Your task to perform on an android device: empty trash in google photos Image 0: 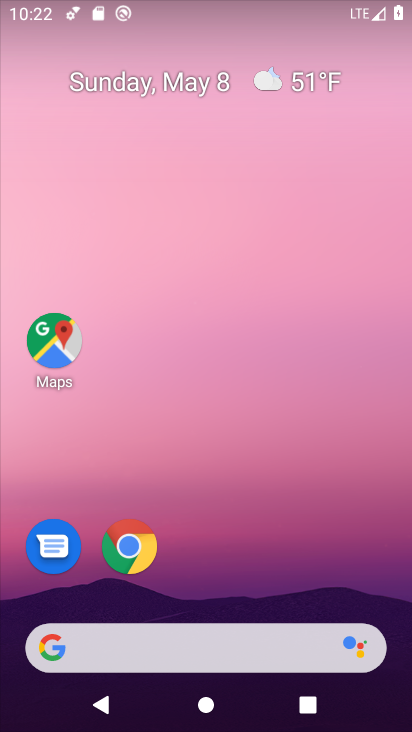
Step 0: drag from (394, 644) to (327, 65)
Your task to perform on an android device: empty trash in google photos Image 1: 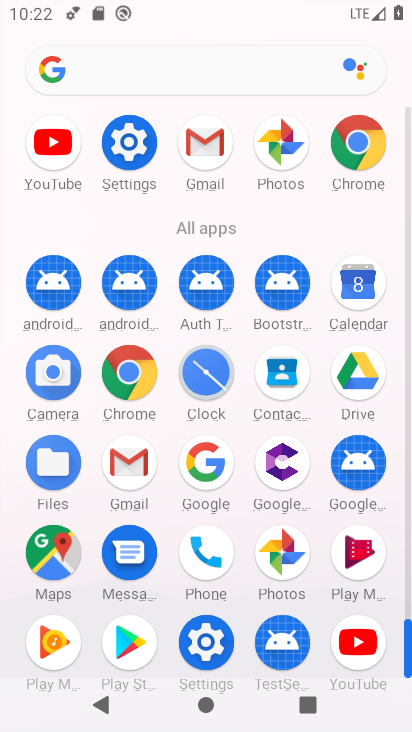
Step 1: click (405, 607)
Your task to perform on an android device: empty trash in google photos Image 2: 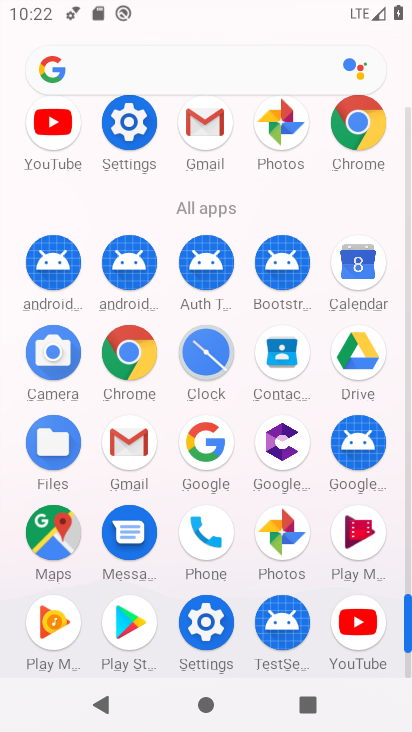
Step 2: click (279, 535)
Your task to perform on an android device: empty trash in google photos Image 3: 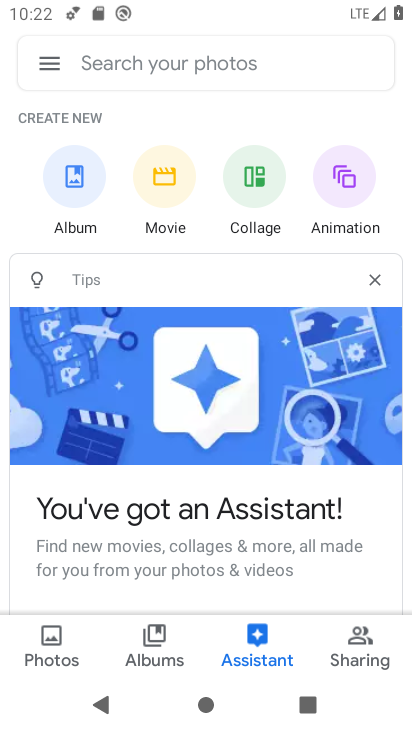
Step 3: click (49, 63)
Your task to perform on an android device: empty trash in google photos Image 4: 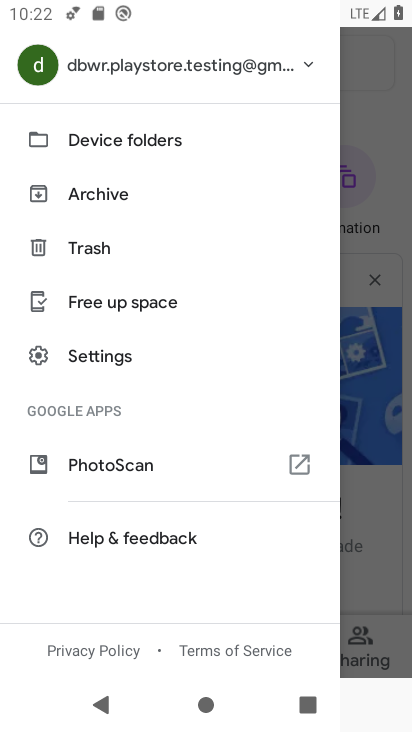
Step 4: click (76, 246)
Your task to perform on an android device: empty trash in google photos Image 5: 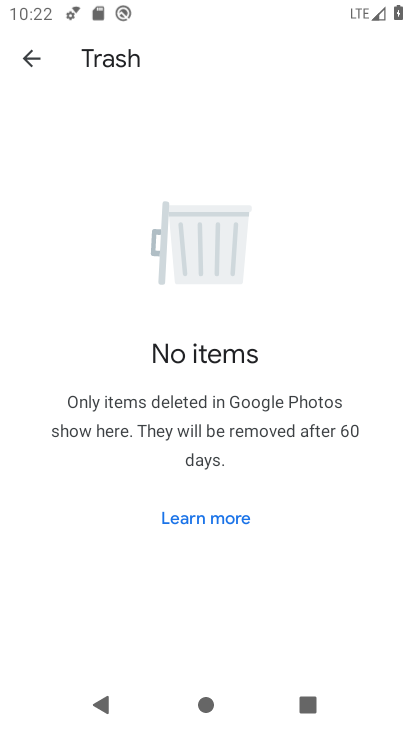
Step 5: task complete